Your task to perform on an android device: Go to Wikipedia Image 0: 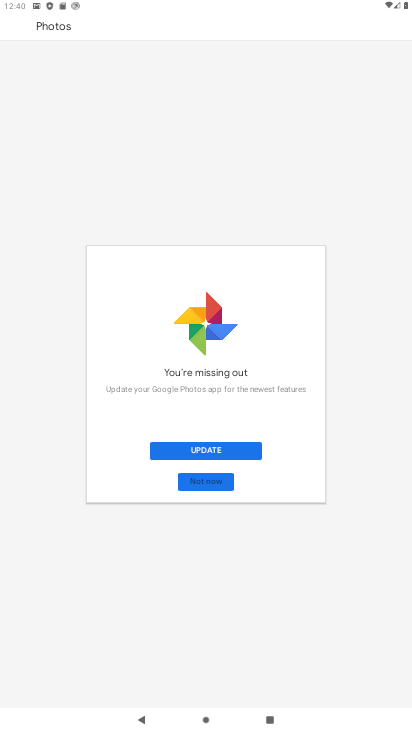
Step 0: press home button
Your task to perform on an android device: Go to Wikipedia Image 1: 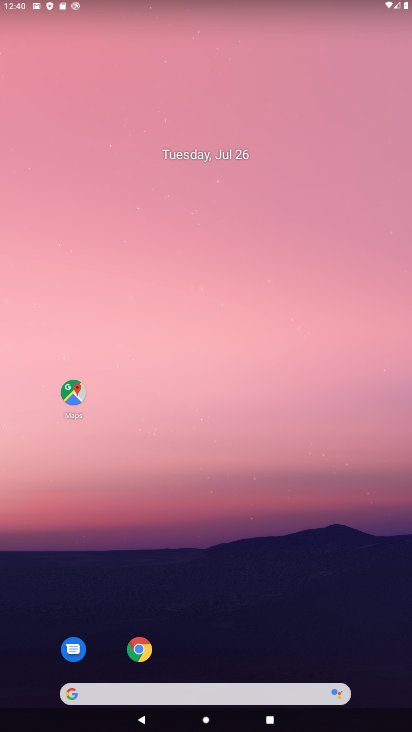
Step 1: click (141, 651)
Your task to perform on an android device: Go to Wikipedia Image 2: 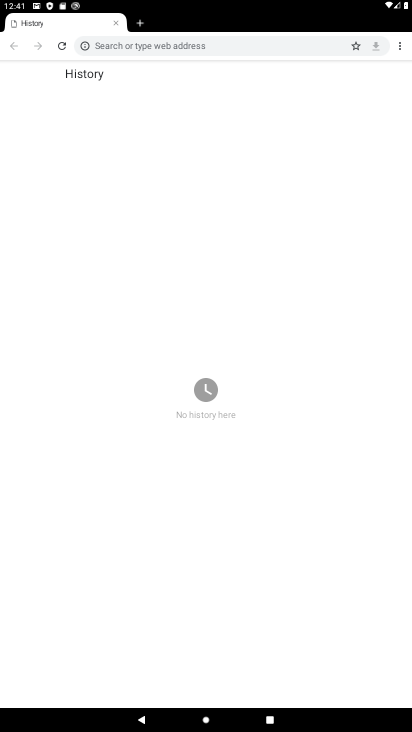
Step 2: click (140, 25)
Your task to perform on an android device: Go to Wikipedia Image 3: 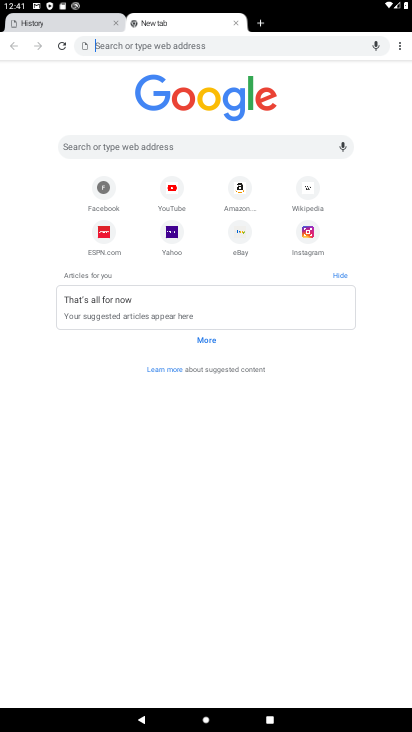
Step 3: click (302, 183)
Your task to perform on an android device: Go to Wikipedia Image 4: 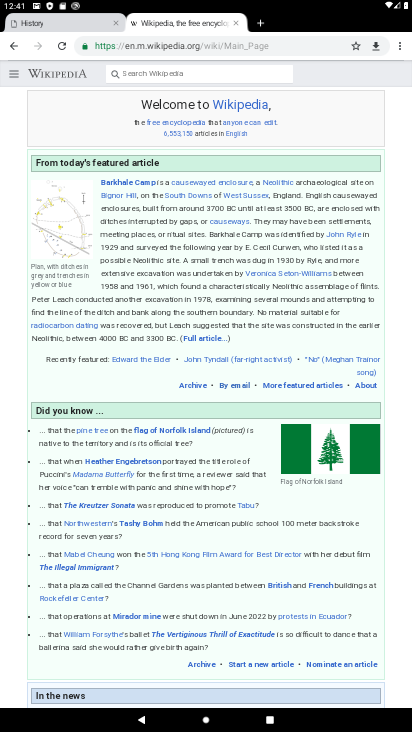
Step 4: task complete